Your task to perform on an android device: turn on javascript in the chrome app Image 0: 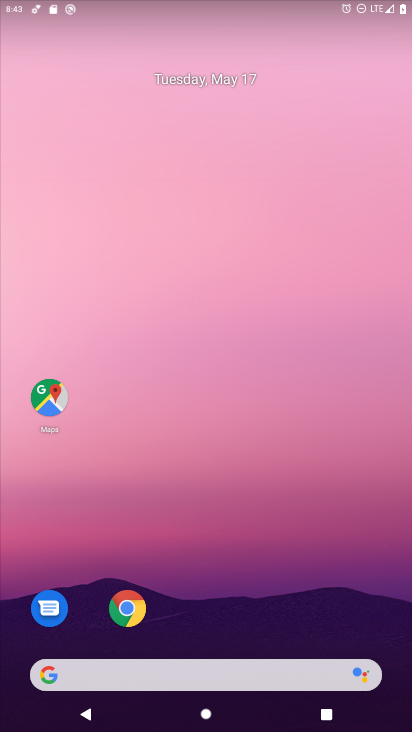
Step 0: click (130, 604)
Your task to perform on an android device: turn on javascript in the chrome app Image 1: 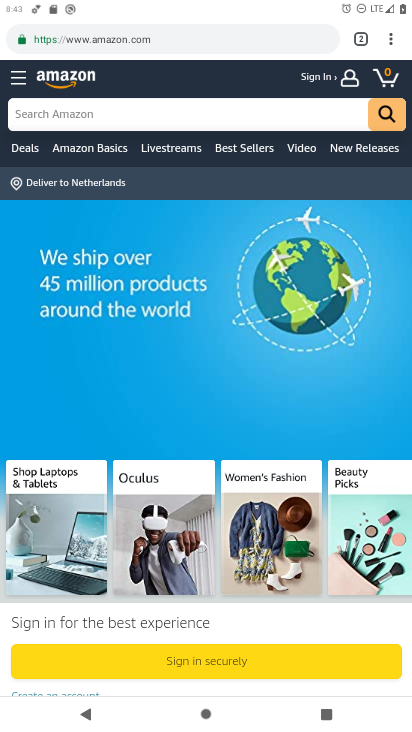
Step 1: click (396, 46)
Your task to perform on an android device: turn on javascript in the chrome app Image 2: 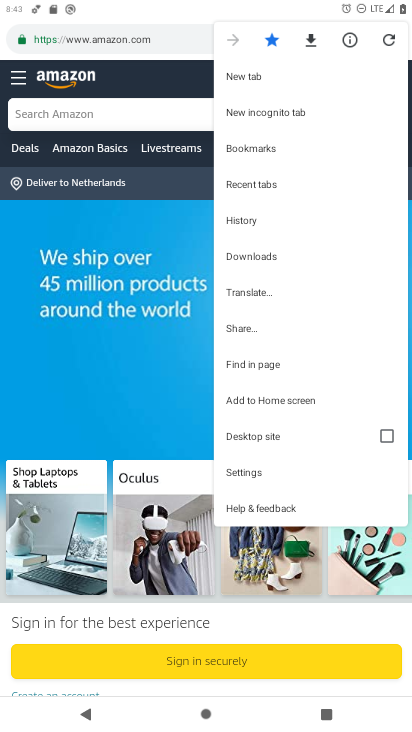
Step 2: click (261, 473)
Your task to perform on an android device: turn on javascript in the chrome app Image 3: 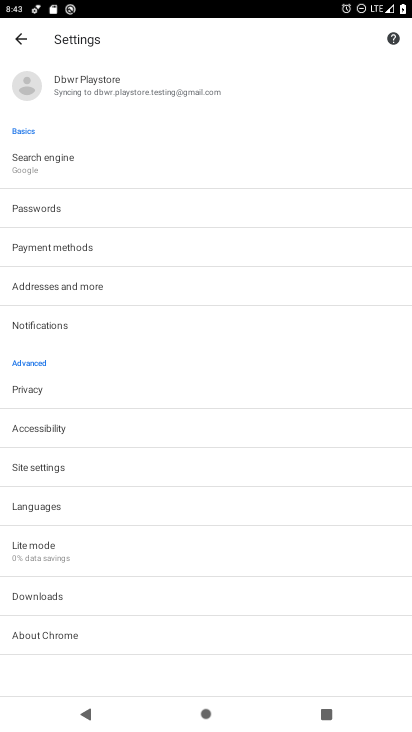
Step 3: click (54, 472)
Your task to perform on an android device: turn on javascript in the chrome app Image 4: 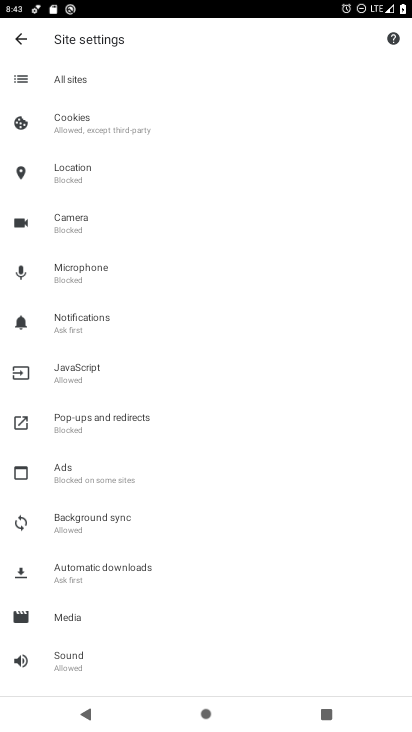
Step 4: click (92, 373)
Your task to perform on an android device: turn on javascript in the chrome app Image 5: 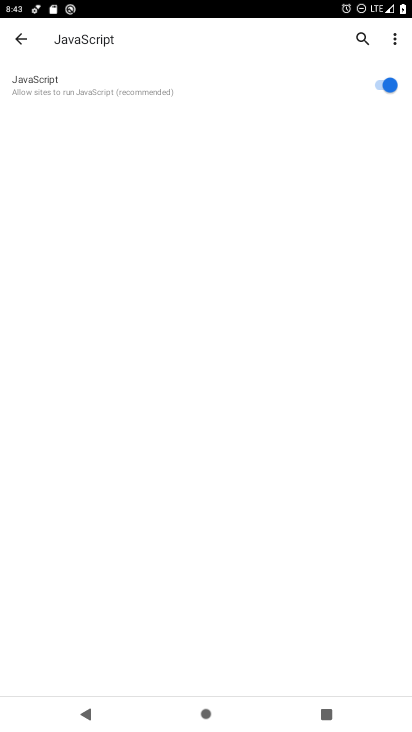
Step 5: task complete